Your task to perform on an android device: turn off improve location accuracy Image 0: 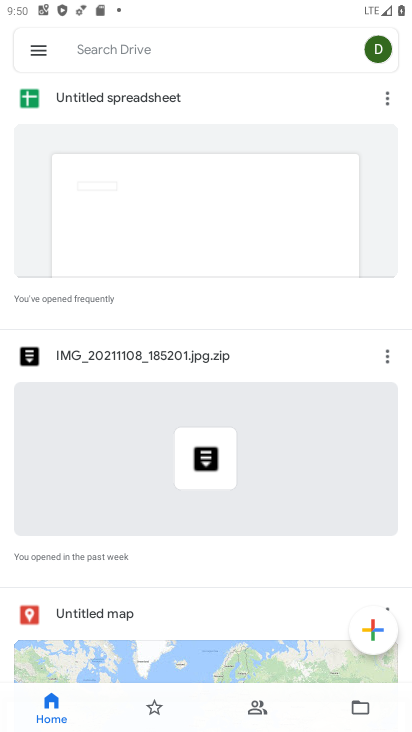
Step 0: press back button
Your task to perform on an android device: turn off improve location accuracy Image 1: 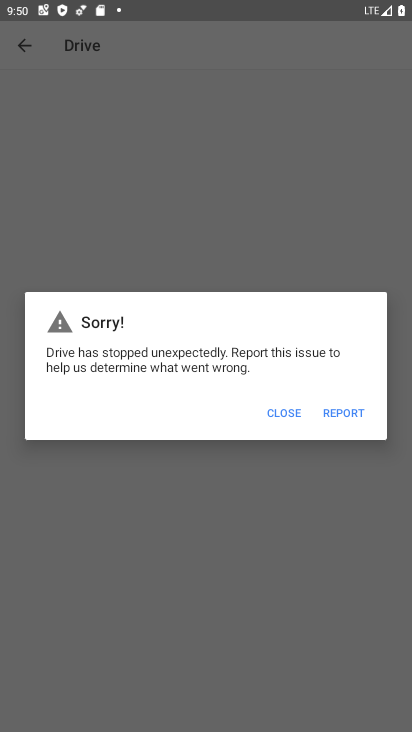
Step 1: press home button
Your task to perform on an android device: turn off improve location accuracy Image 2: 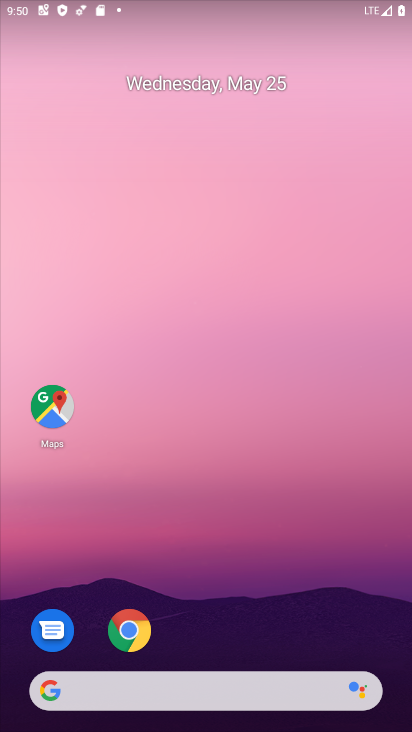
Step 2: drag from (216, 608) to (275, 35)
Your task to perform on an android device: turn off improve location accuracy Image 3: 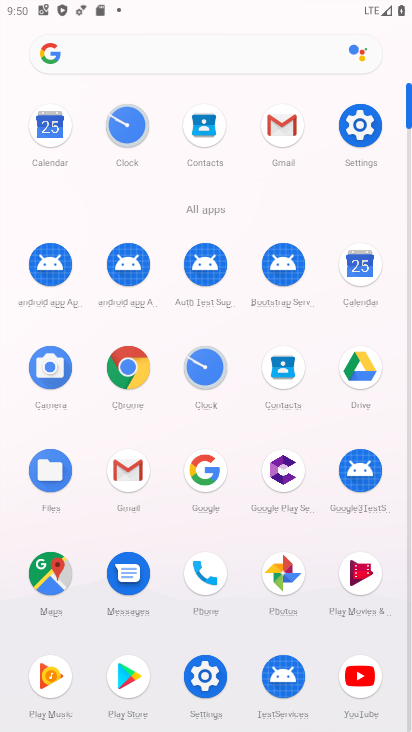
Step 3: click (352, 123)
Your task to perform on an android device: turn off improve location accuracy Image 4: 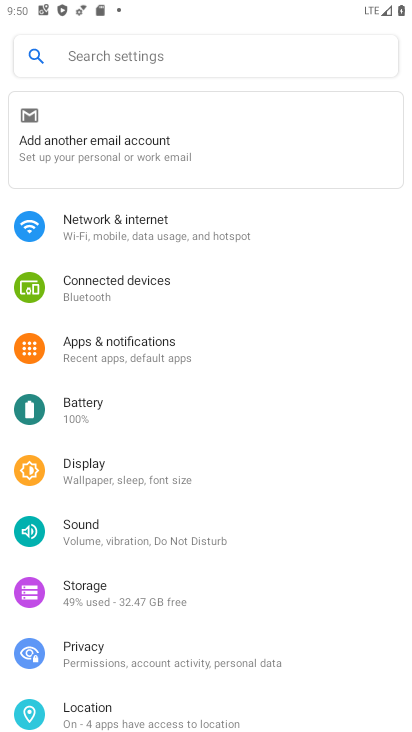
Step 4: click (93, 707)
Your task to perform on an android device: turn off improve location accuracy Image 5: 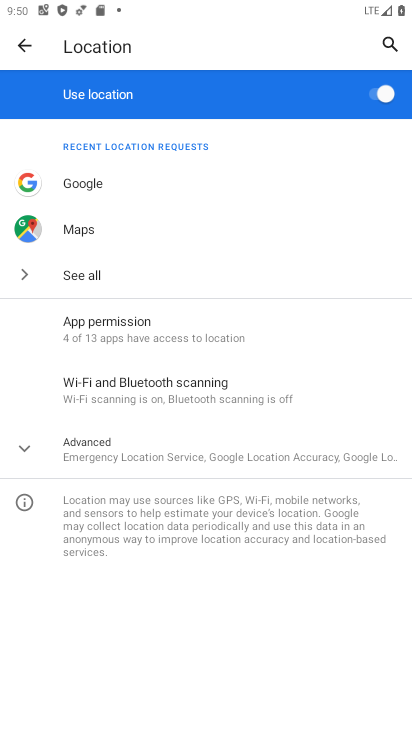
Step 5: click (173, 450)
Your task to perform on an android device: turn off improve location accuracy Image 6: 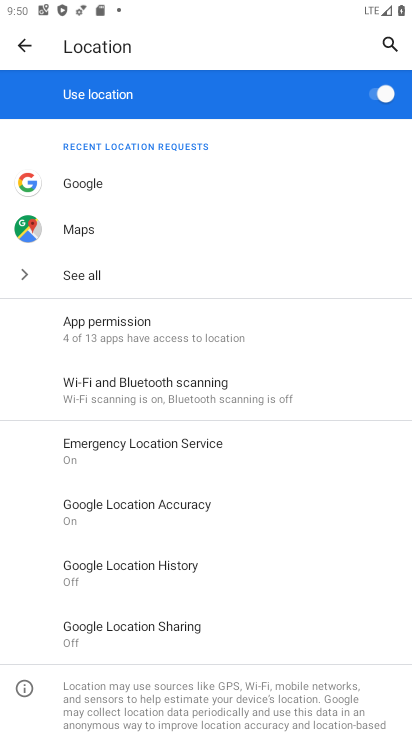
Step 6: click (160, 498)
Your task to perform on an android device: turn off improve location accuracy Image 7: 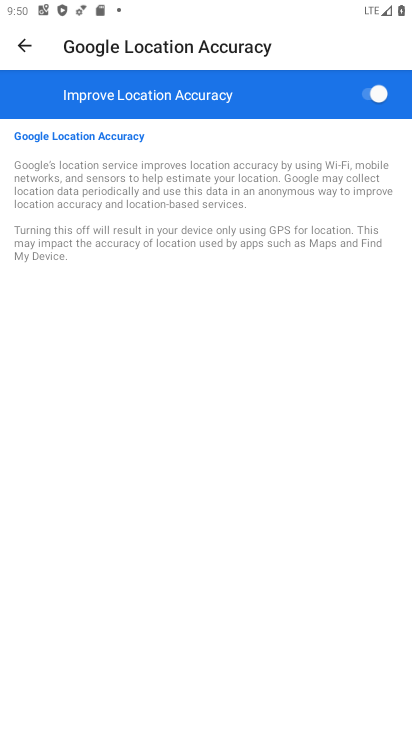
Step 7: click (378, 95)
Your task to perform on an android device: turn off improve location accuracy Image 8: 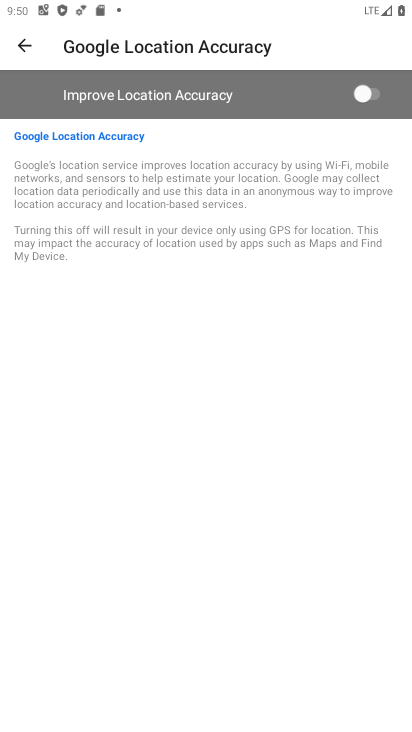
Step 8: task complete